Your task to perform on an android device: toggle data saver in the chrome app Image 0: 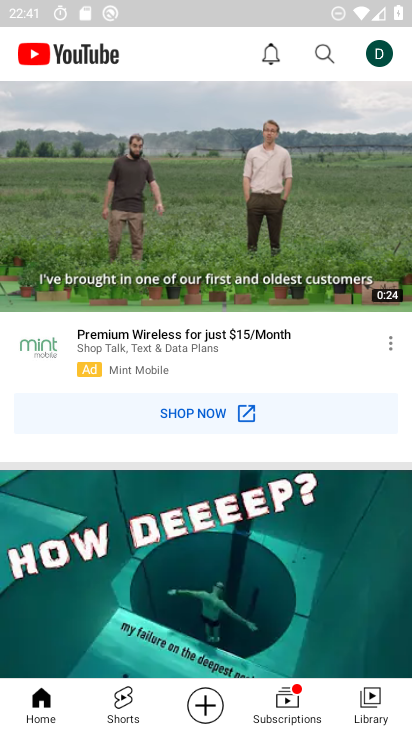
Step 0: press home button
Your task to perform on an android device: toggle data saver in the chrome app Image 1: 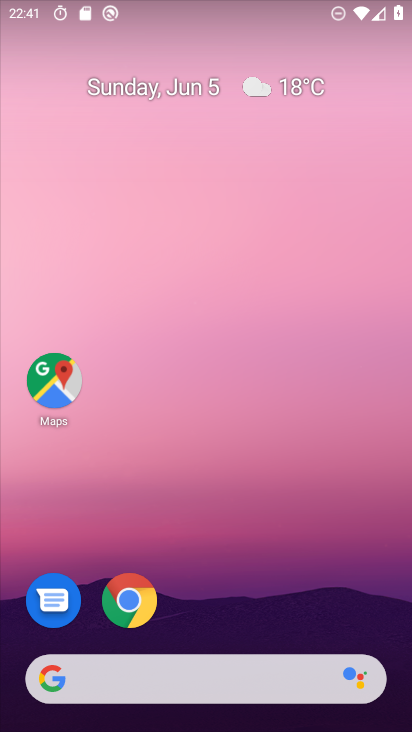
Step 1: click (126, 596)
Your task to perform on an android device: toggle data saver in the chrome app Image 2: 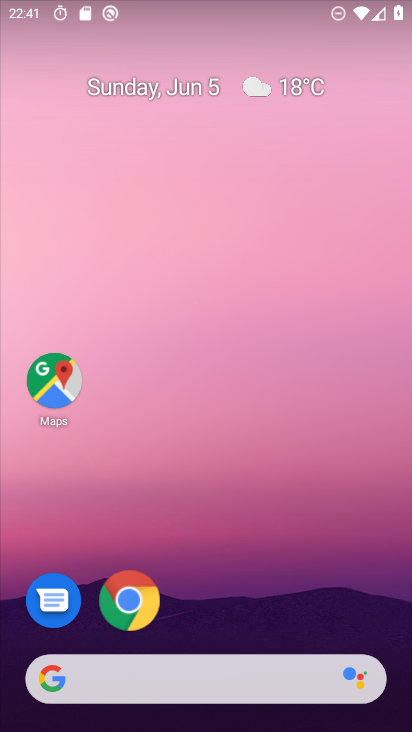
Step 2: click (127, 599)
Your task to perform on an android device: toggle data saver in the chrome app Image 3: 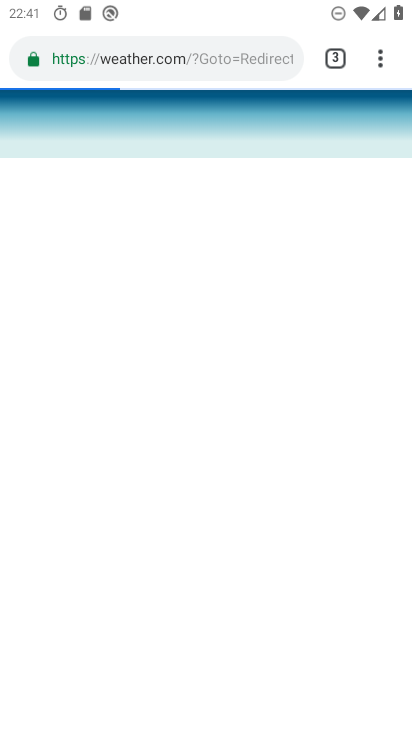
Step 3: drag from (396, 61) to (346, 111)
Your task to perform on an android device: toggle data saver in the chrome app Image 4: 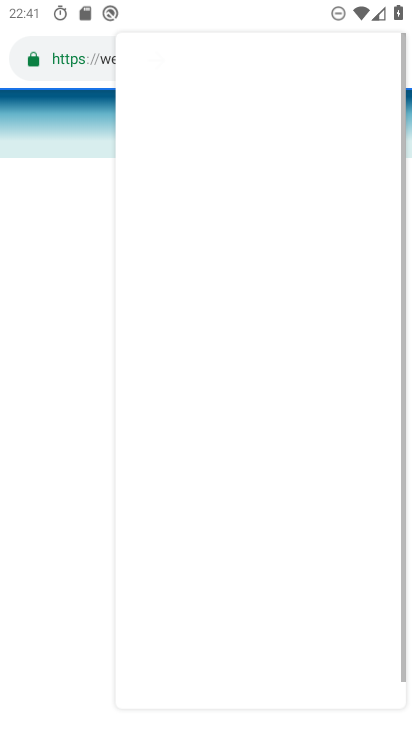
Step 4: drag from (380, 56) to (322, 170)
Your task to perform on an android device: toggle data saver in the chrome app Image 5: 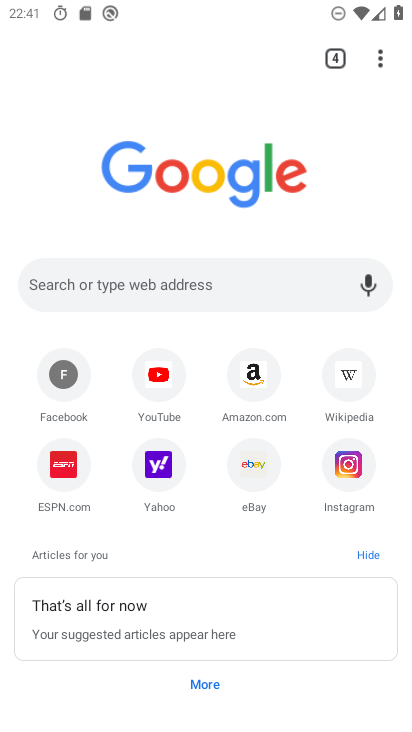
Step 5: drag from (381, 50) to (214, 486)
Your task to perform on an android device: toggle data saver in the chrome app Image 6: 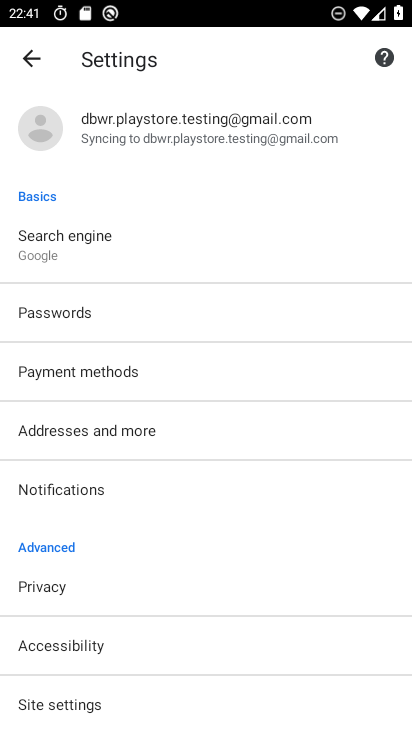
Step 6: drag from (228, 604) to (218, 215)
Your task to perform on an android device: toggle data saver in the chrome app Image 7: 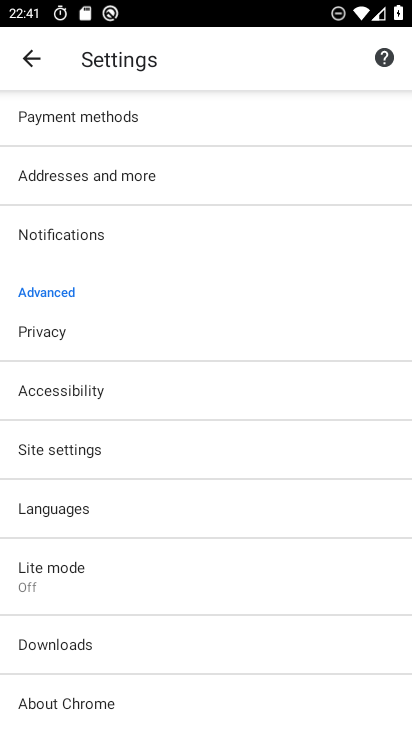
Step 7: click (61, 578)
Your task to perform on an android device: toggle data saver in the chrome app Image 8: 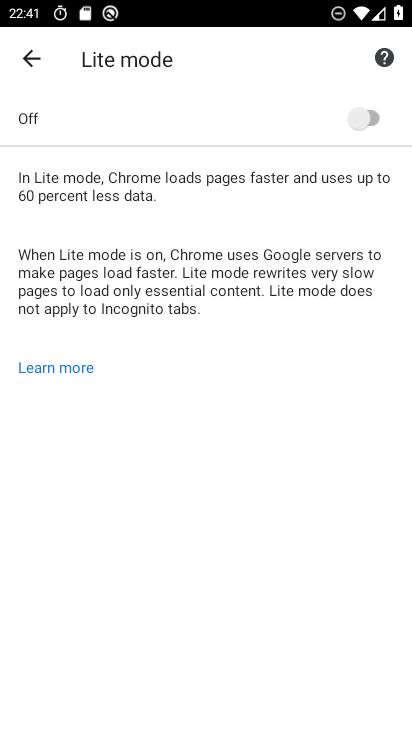
Step 8: click (329, 116)
Your task to perform on an android device: toggle data saver in the chrome app Image 9: 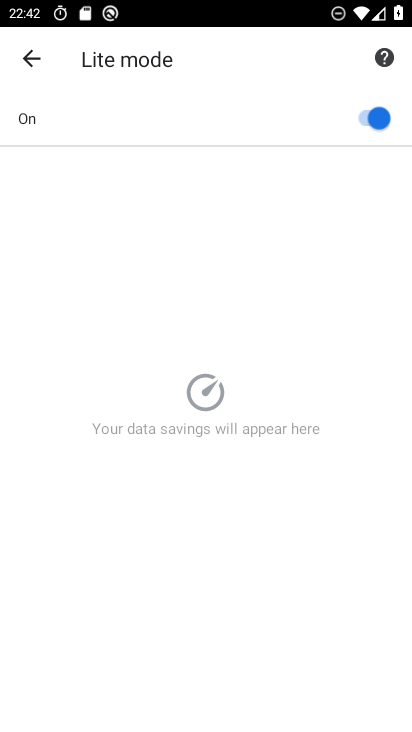
Step 9: task complete